Your task to perform on an android device: Open my contact list Image 0: 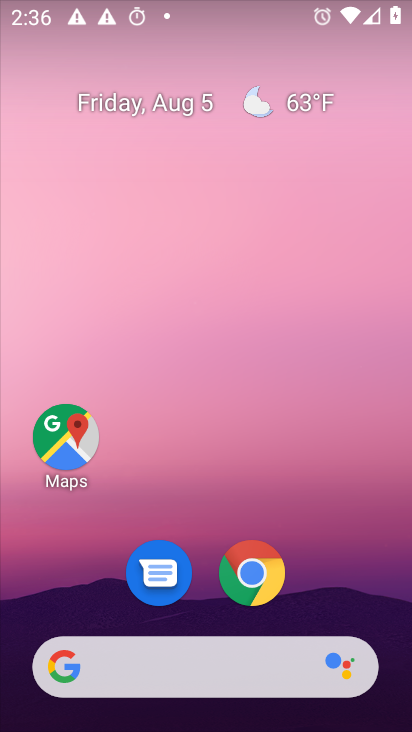
Step 0: drag from (337, 558) to (373, 120)
Your task to perform on an android device: Open my contact list Image 1: 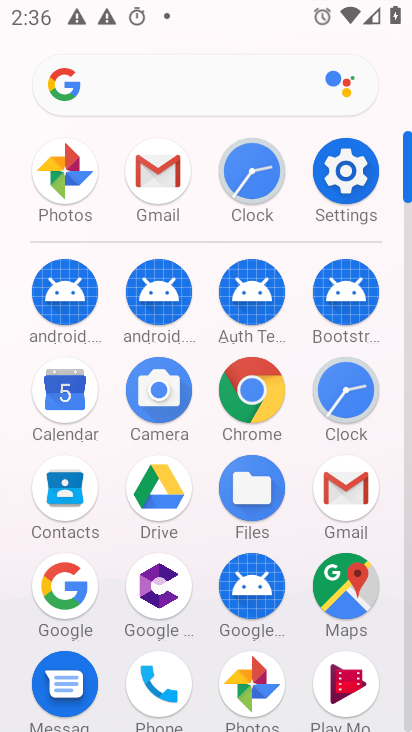
Step 1: click (60, 518)
Your task to perform on an android device: Open my contact list Image 2: 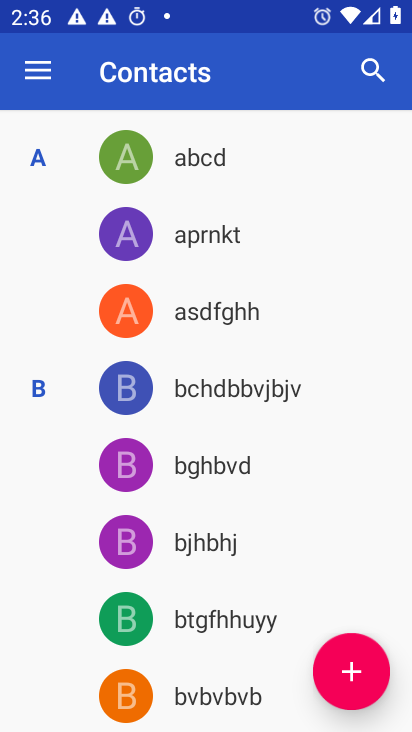
Step 2: task complete